Your task to perform on an android device: allow notifications from all sites in the chrome app Image 0: 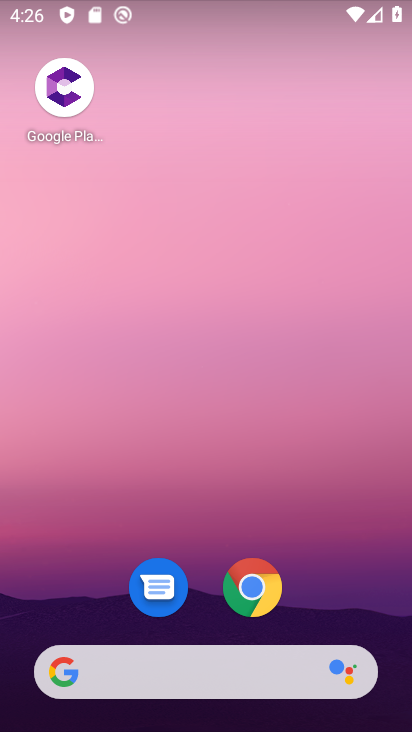
Step 0: click (258, 591)
Your task to perform on an android device: allow notifications from all sites in the chrome app Image 1: 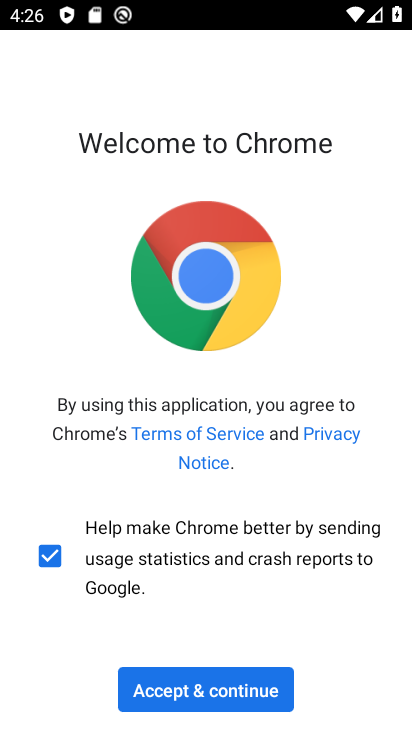
Step 1: click (259, 688)
Your task to perform on an android device: allow notifications from all sites in the chrome app Image 2: 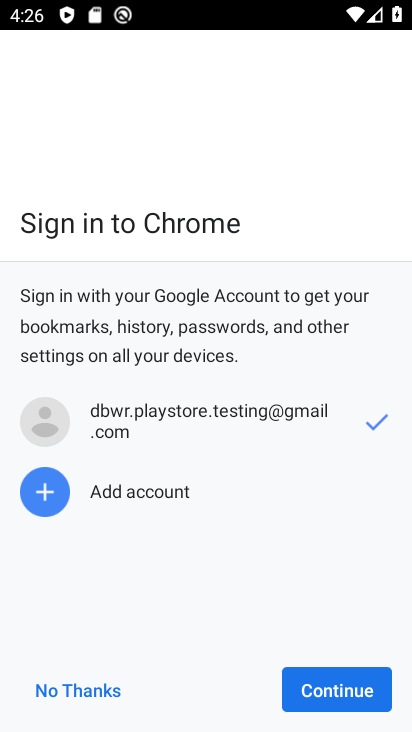
Step 2: click (371, 686)
Your task to perform on an android device: allow notifications from all sites in the chrome app Image 3: 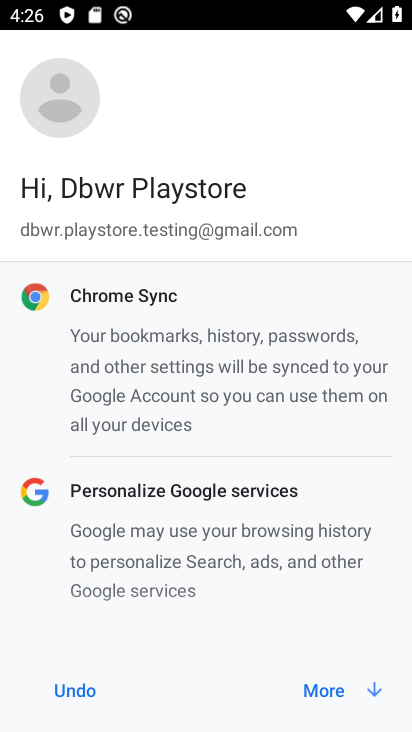
Step 3: click (350, 679)
Your task to perform on an android device: allow notifications from all sites in the chrome app Image 4: 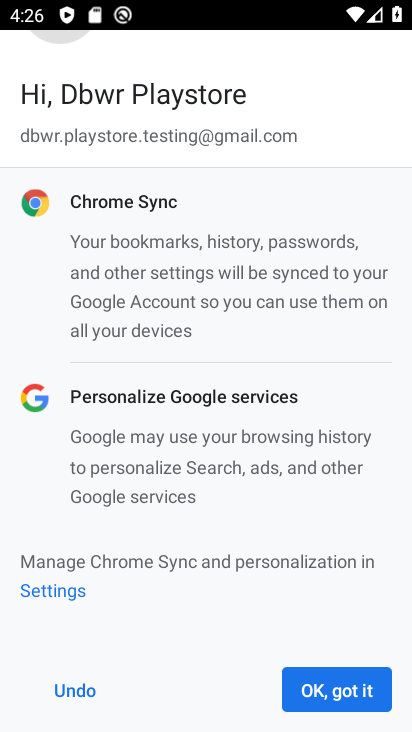
Step 4: click (354, 688)
Your task to perform on an android device: allow notifications from all sites in the chrome app Image 5: 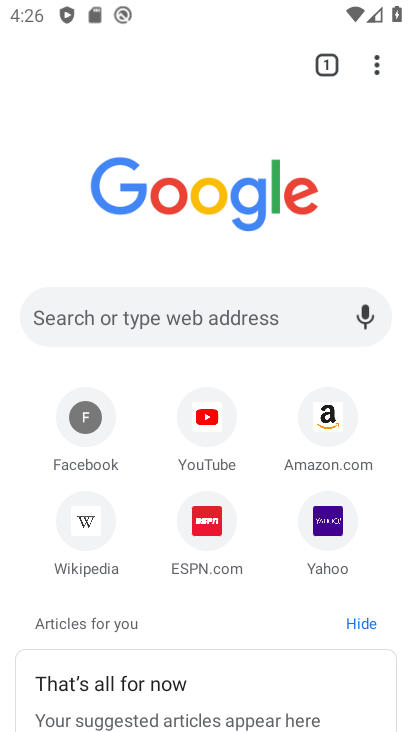
Step 5: click (383, 64)
Your task to perform on an android device: allow notifications from all sites in the chrome app Image 6: 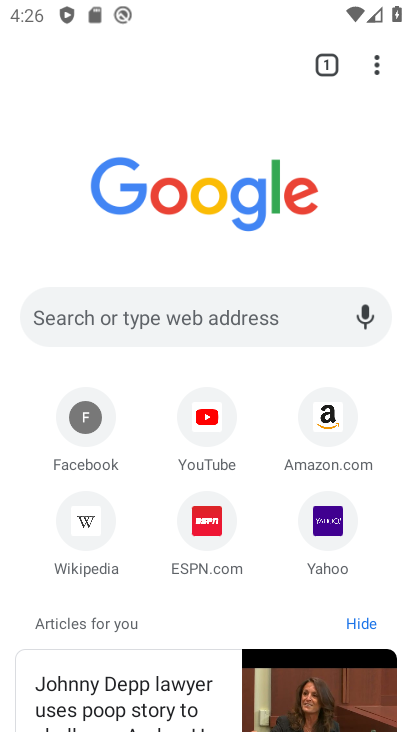
Step 6: click (373, 63)
Your task to perform on an android device: allow notifications from all sites in the chrome app Image 7: 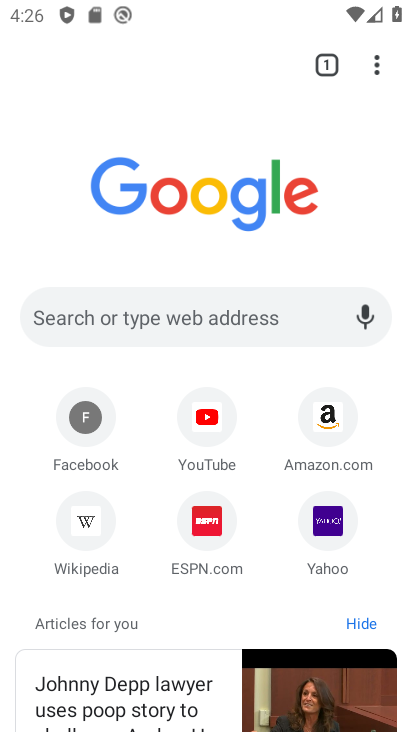
Step 7: click (371, 62)
Your task to perform on an android device: allow notifications from all sites in the chrome app Image 8: 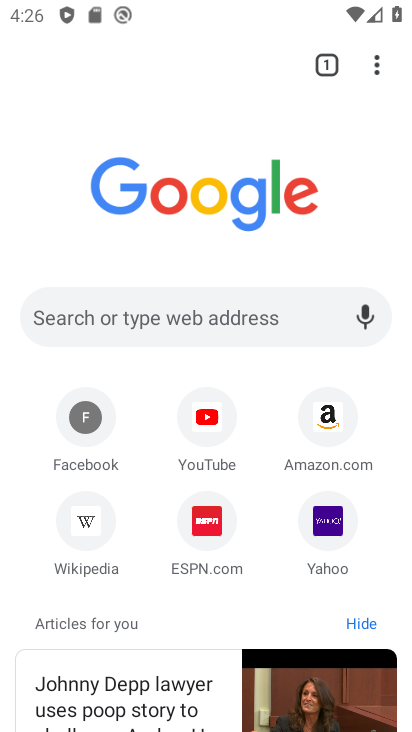
Step 8: click (369, 64)
Your task to perform on an android device: allow notifications from all sites in the chrome app Image 9: 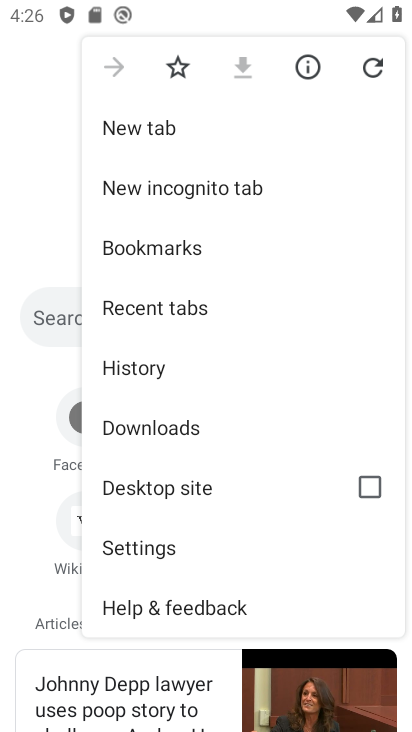
Step 9: click (179, 550)
Your task to perform on an android device: allow notifications from all sites in the chrome app Image 10: 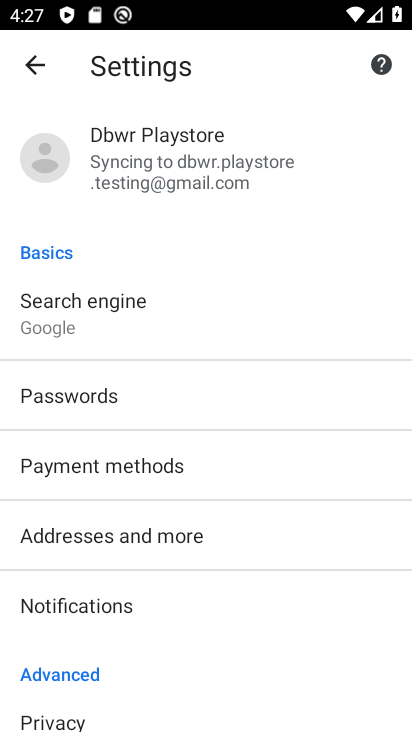
Step 10: drag from (196, 656) to (210, 164)
Your task to perform on an android device: allow notifications from all sites in the chrome app Image 11: 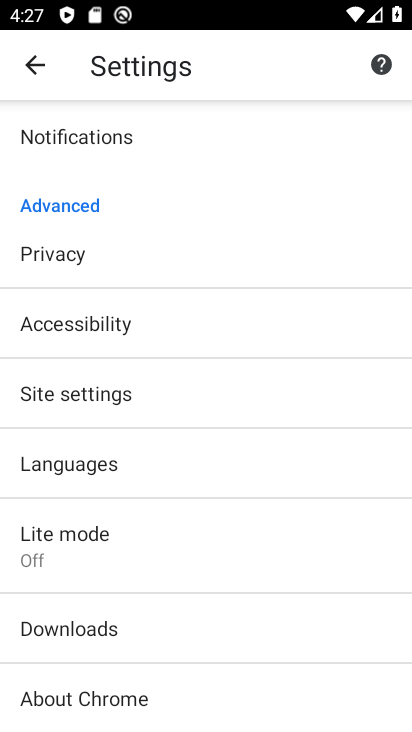
Step 11: click (147, 405)
Your task to perform on an android device: allow notifications from all sites in the chrome app Image 12: 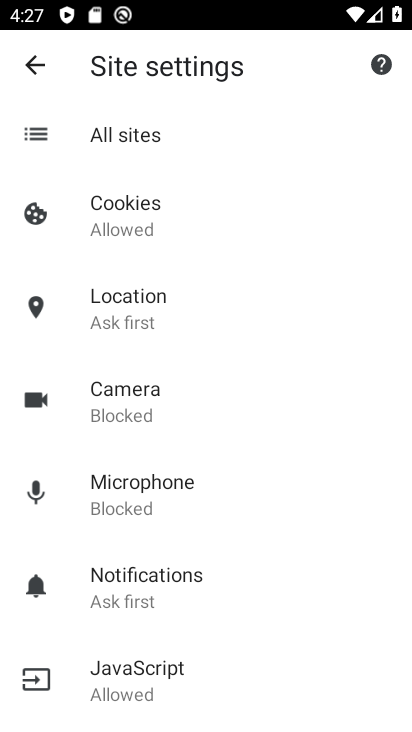
Step 12: click (255, 589)
Your task to perform on an android device: allow notifications from all sites in the chrome app Image 13: 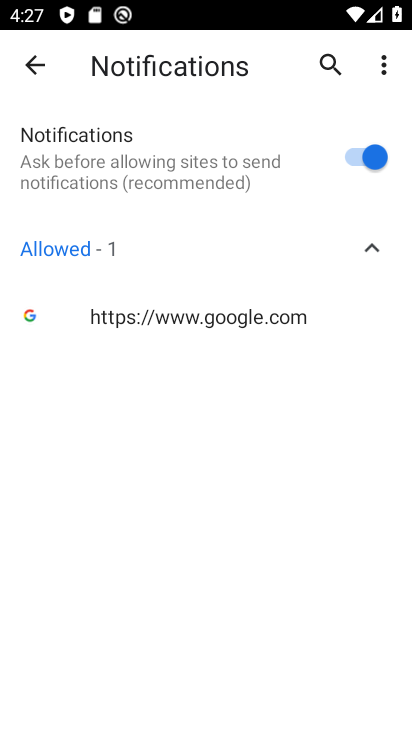
Step 13: task complete